Your task to perform on an android device: toggle wifi Image 0: 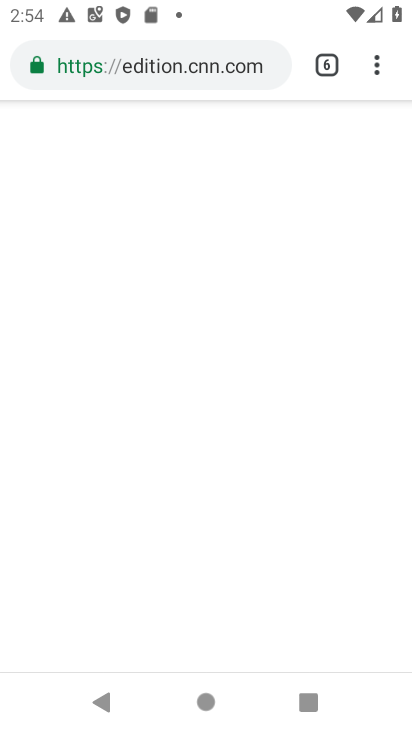
Step 0: press home button
Your task to perform on an android device: toggle wifi Image 1: 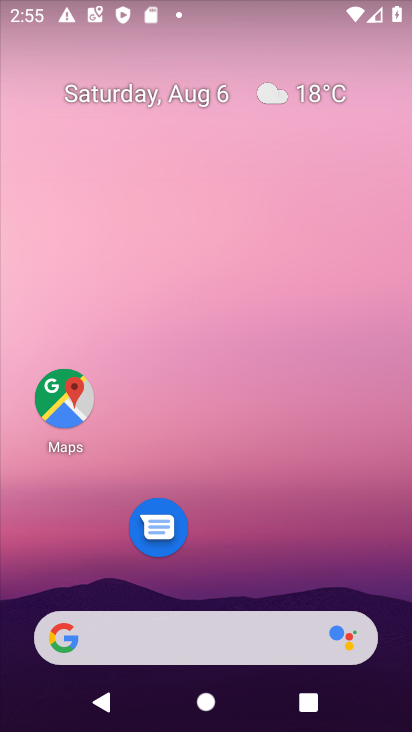
Step 1: drag from (278, 0) to (235, 670)
Your task to perform on an android device: toggle wifi Image 2: 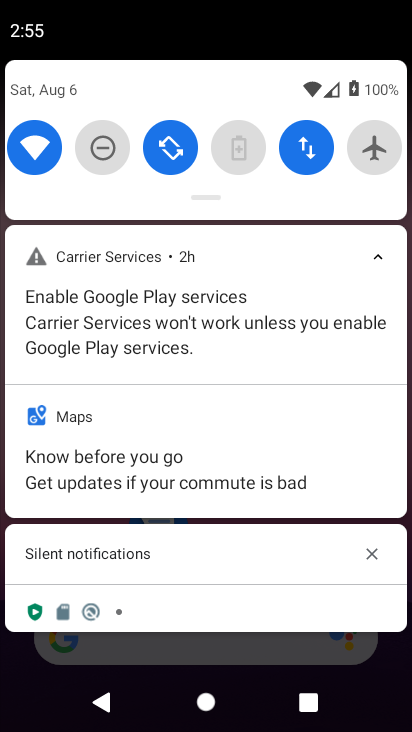
Step 2: click (44, 162)
Your task to perform on an android device: toggle wifi Image 3: 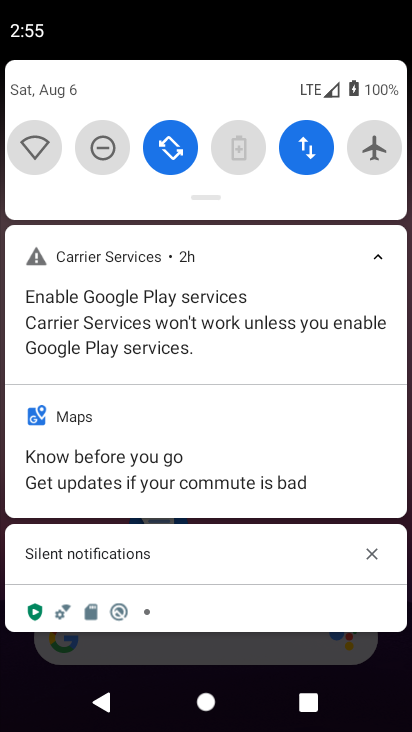
Step 3: task complete